Your task to perform on an android device: Show me the alarms in the clock app Image 0: 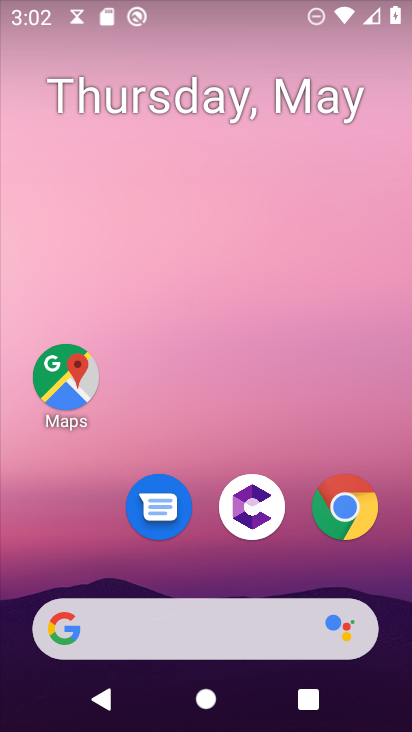
Step 0: drag from (266, 447) to (206, 134)
Your task to perform on an android device: Show me the alarms in the clock app Image 1: 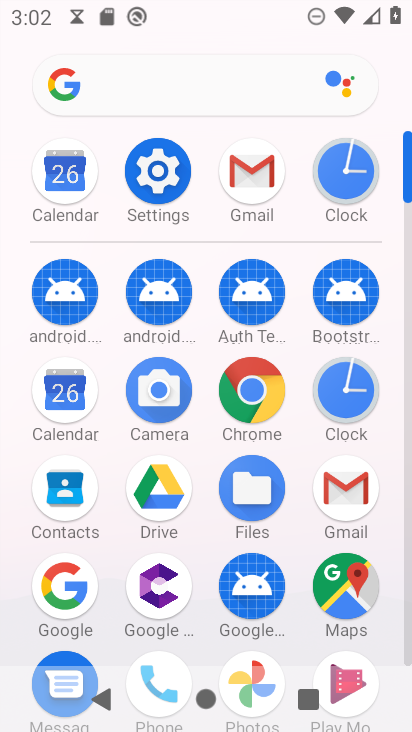
Step 1: click (343, 188)
Your task to perform on an android device: Show me the alarms in the clock app Image 2: 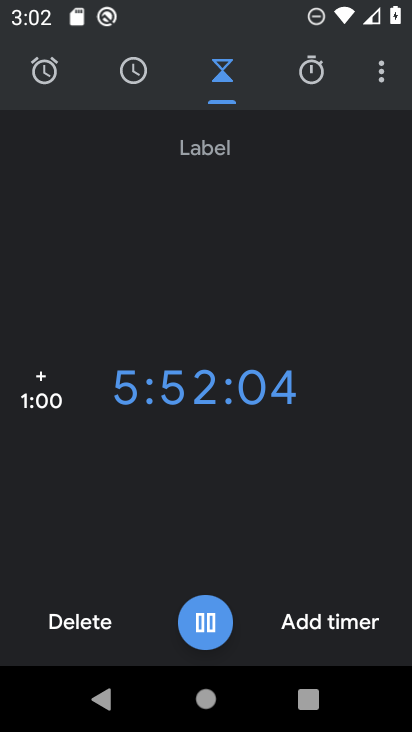
Step 2: click (41, 72)
Your task to perform on an android device: Show me the alarms in the clock app Image 3: 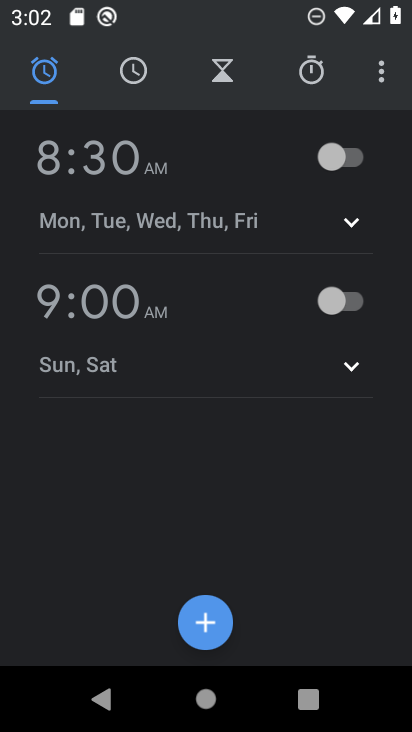
Step 3: task complete